Your task to perform on an android device: Open display settings Image 0: 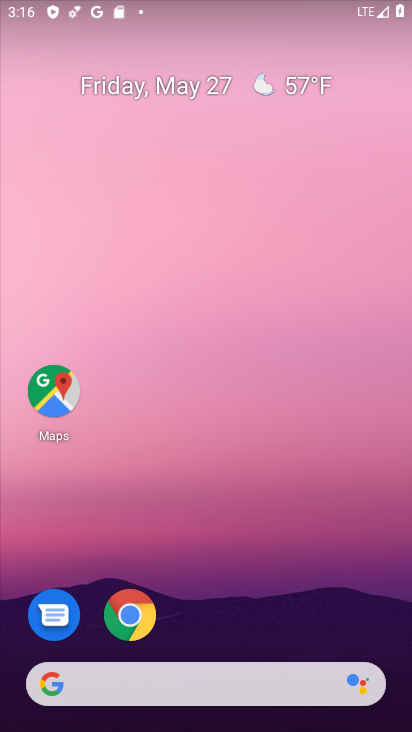
Step 0: drag from (211, 628) to (151, 54)
Your task to perform on an android device: Open display settings Image 1: 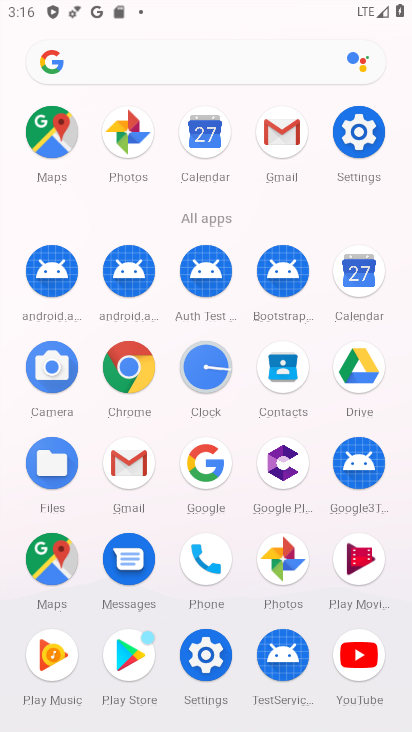
Step 1: click (353, 132)
Your task to perform on an android device: Open display settings Image 2: 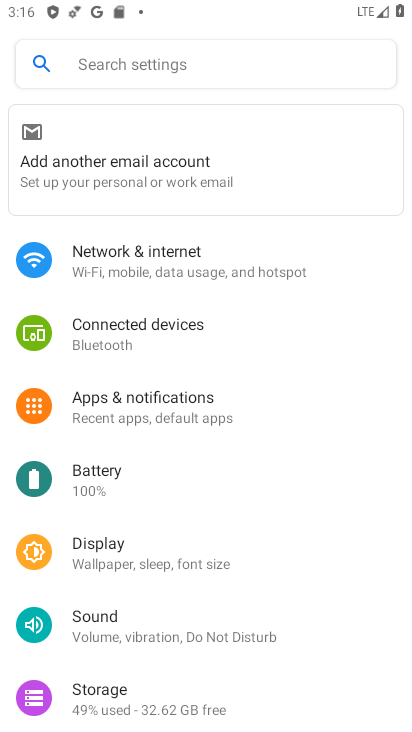
Step 2: click (89, 553)
Your task to perform on an android device: Open display settings Image 3: 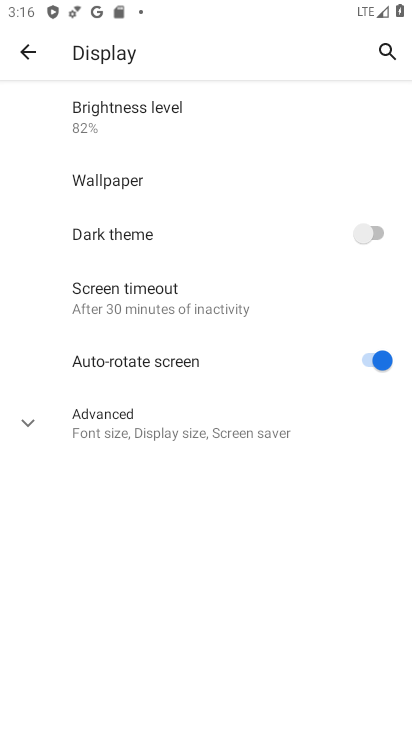
Step 3: task complete